Your task to perform on an android device: Search for vegetarian restaurants on Maps Image 0: 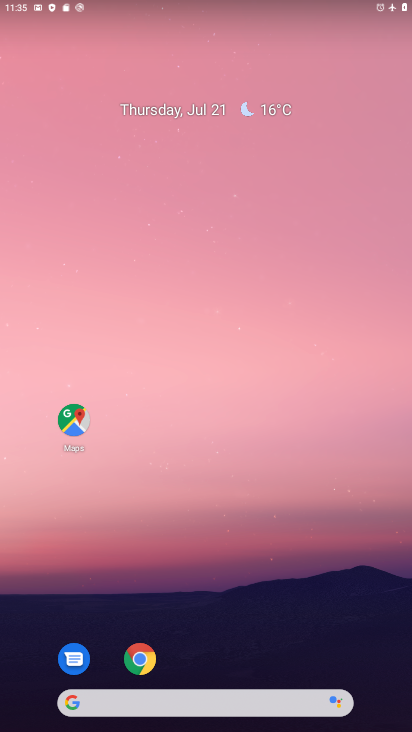
Step 0: click (77, 427)
Your task to perform on an android device: Search for vegetarian restaurants on Maps Image 1: 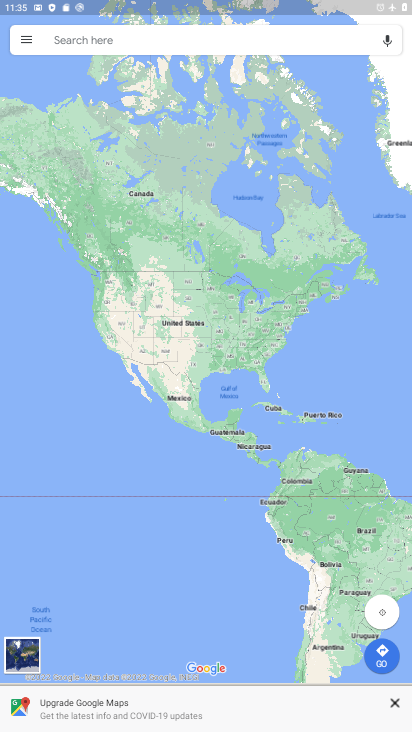
Step 1: click (192, 40)
Your task to perform on an android device: Search for vegetarian restaurants on Maps Image 2: 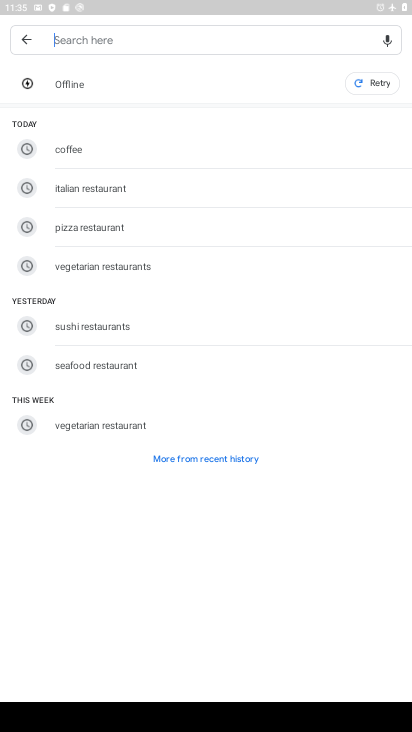
Step 2: click (91, 261)
Your task to perform on an android device: Search for vegetarian restaurants on Maps Image 3: 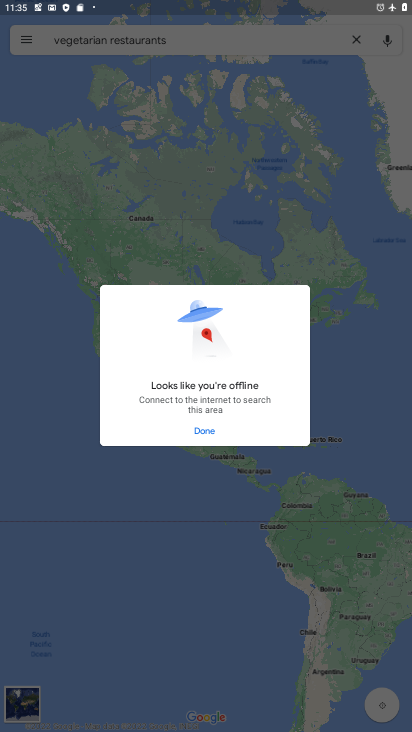
Step 3: task complete